Your task to perform on an android device: turn notification dots on Image 0: 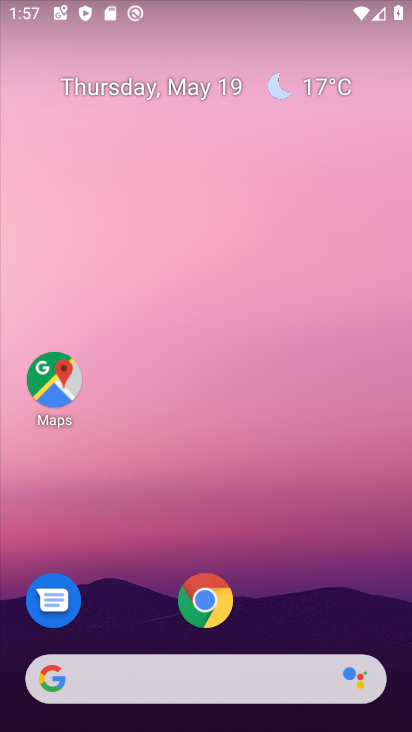
Step 0: drag from (339, 616) to (357, 210)
Your task to perform on an android device: turn notification dots on Image 1: 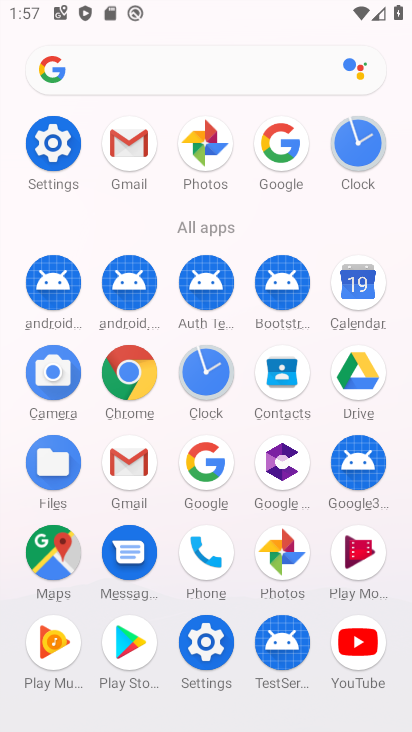
Step 1: click (37, 156)
Your task to perform on an android device: turn notification dots on Image 2: 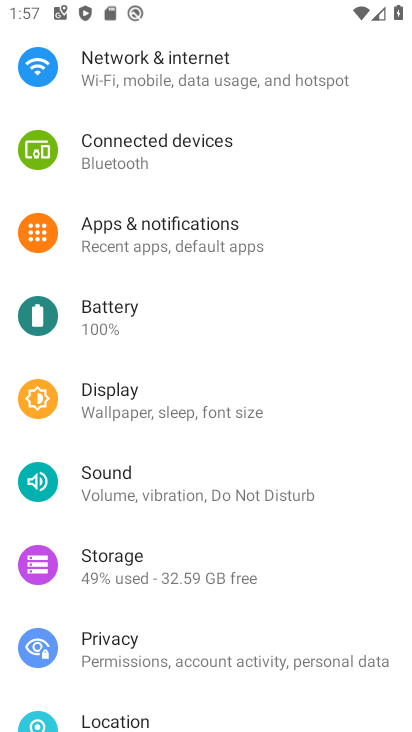
Step 2: click (176, 236)
Your task to perform on an android device: turn notification dots on Image 3: 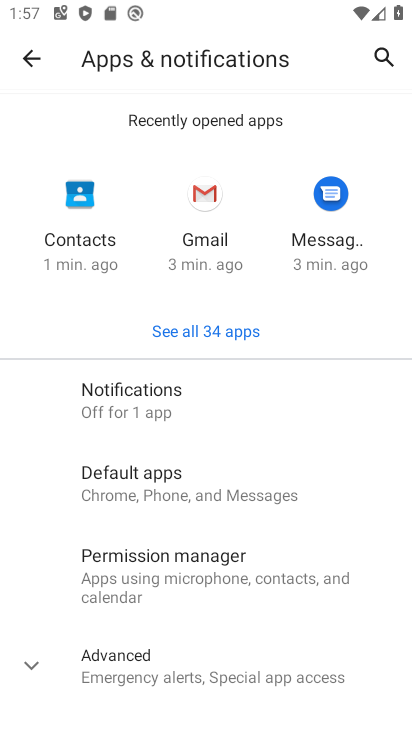
Step 3: click (181, 392)
Your task to perform on an android device: turn notification dots on Image 4: 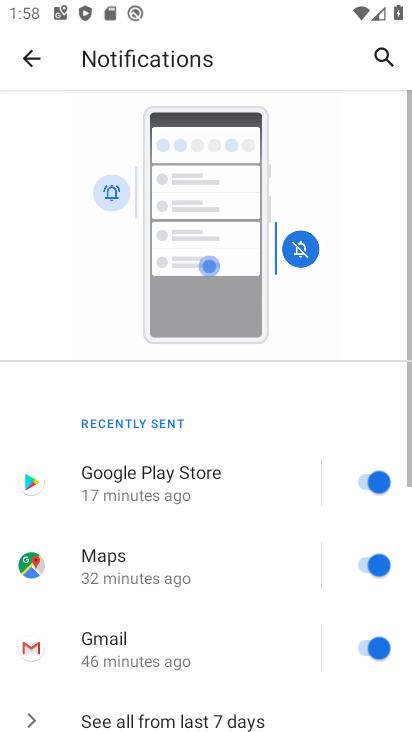
Step 4: drag from (268, 613) to (289, 315)
Your task to perform on an android device: turn notification dots on Image 5: 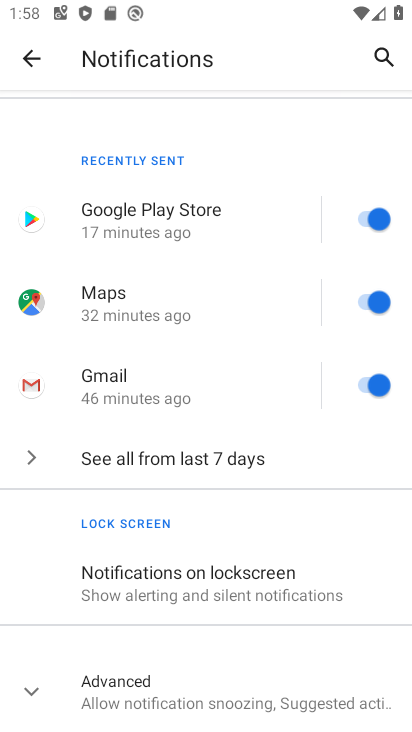
Step 5: click (250, 687)
Your task to perform on an android device: turn notification dots on Image 6: 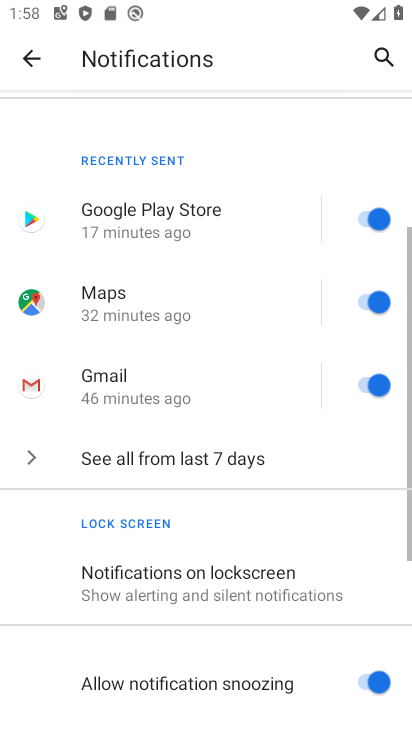
Step 6: drag from (247, 680) to (266, 401)
Your task to perform on an android device: turn notification dots on Image 7: 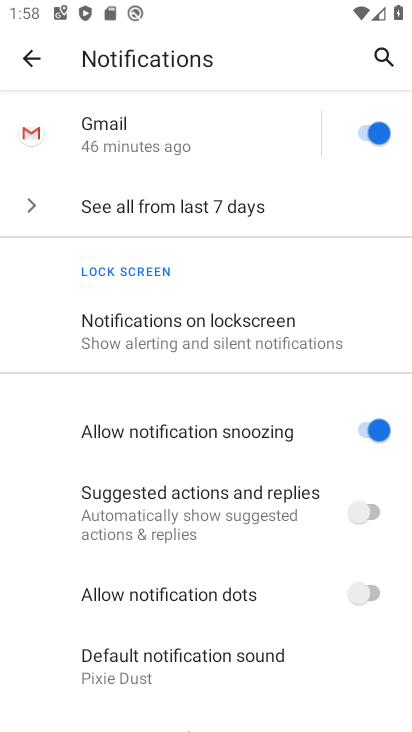
Step 7: click (360, 588)
Your task to perform on an android device: turn notification dots on Image 8: 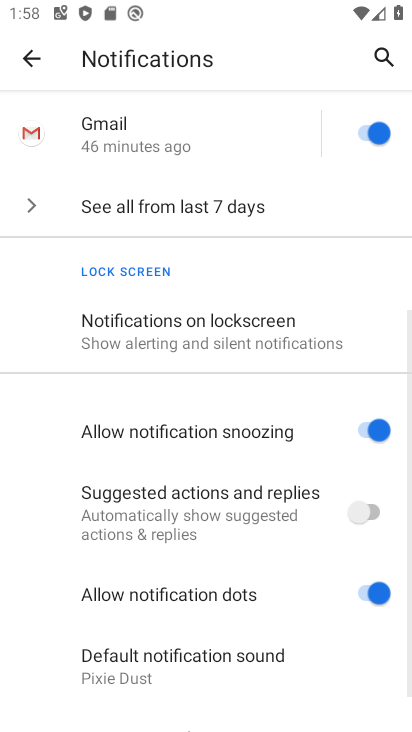
Step 8: task complete